Your task to perform on an android device: turn on javascript in the chrome app Image 0: 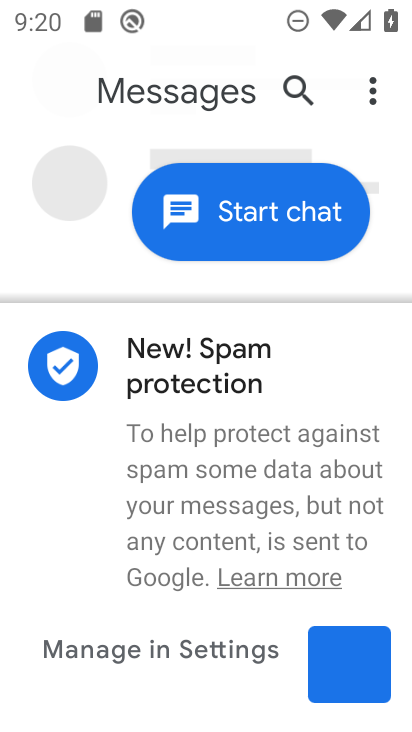
Step 0: press home button
Your task to perform on an android device: turn on javascript in the chrome app Image 1: 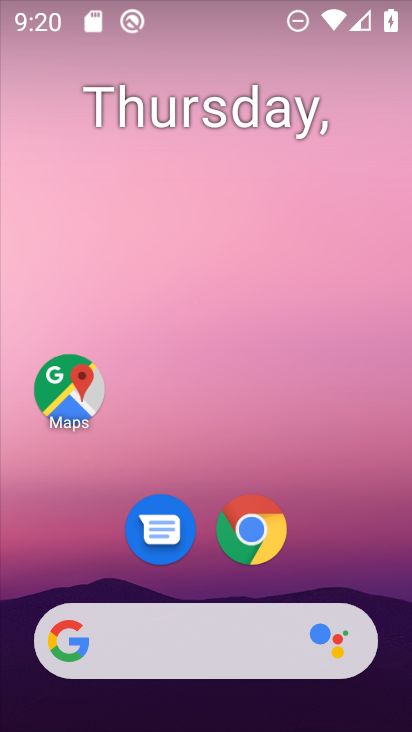
Step 1: click (244, 529)
Your task to perform on an android device: turn on javascript in the chrome app Image 2: 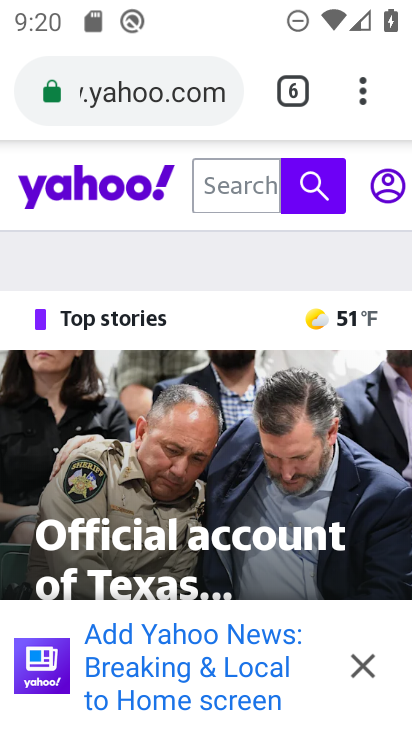
Step 2: click (360, 100)
Your task to perform on an android device: turn on javascript in the chrome app Image 3: 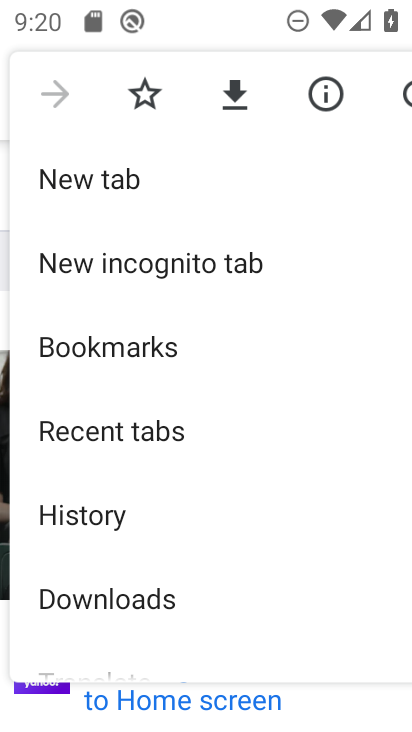
Step 3: drag from (103, 603) to (98, 142)
Your task to perform on an android device: turn on javascript in the chrome app Image 4: 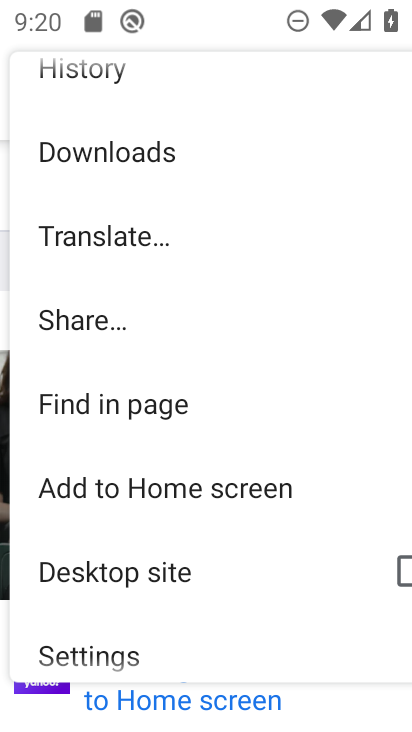
Step 4: click (99, 650)
Your task to perform on an android device: turn on javascript in the chrome app Image 5: 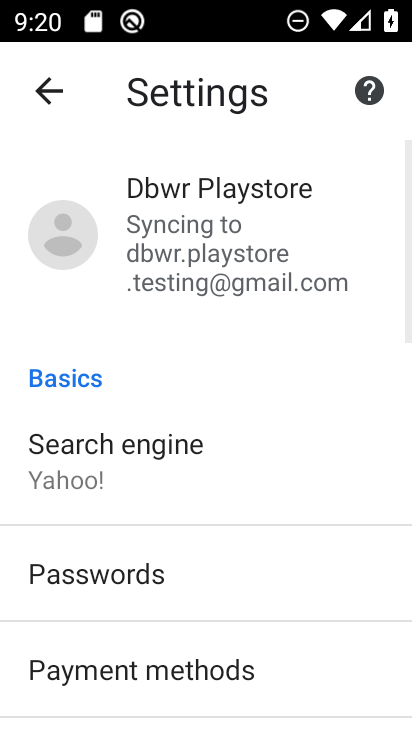
Step 5: drag from (147, 698) to (147, 537)
Your task to perform on an android device: turn on javascript in the chrome app Image 6: 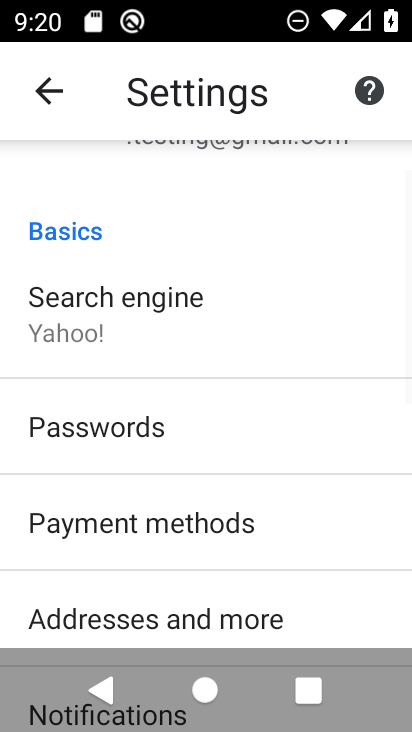
Step 6: click (181, 186)
Your task to perform on an android device: turn on javascript in the chrome app Image 7: 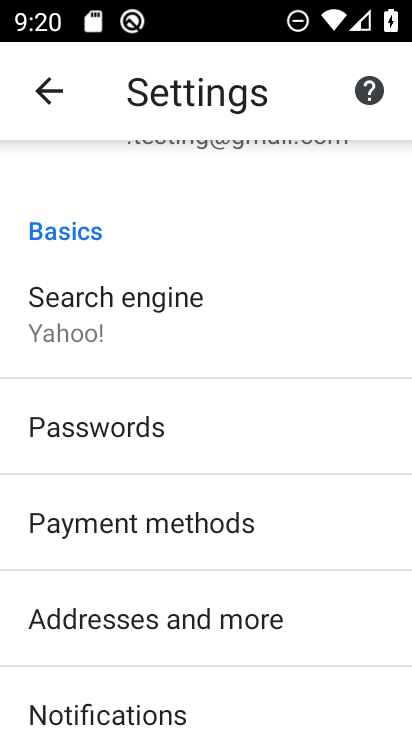
Step 7: drag from (340, 632) to (335, 130)
Your task to perform on an android device: turn on javascript in the chrome app Image 8: 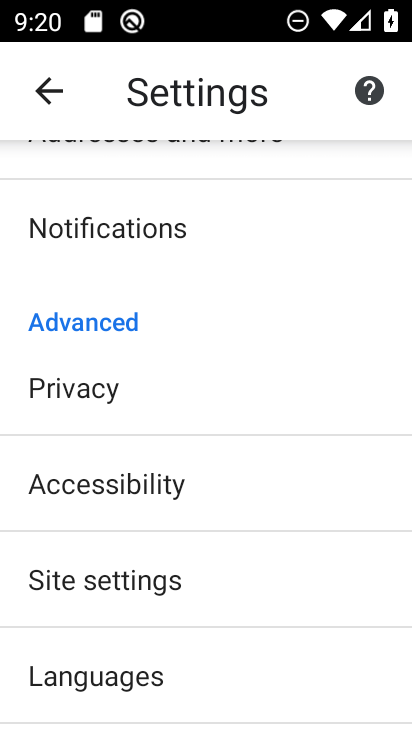
Step 8: click (111, 578)
Your task to perform on an android device: turn on javascript in the chrome app Image 9: 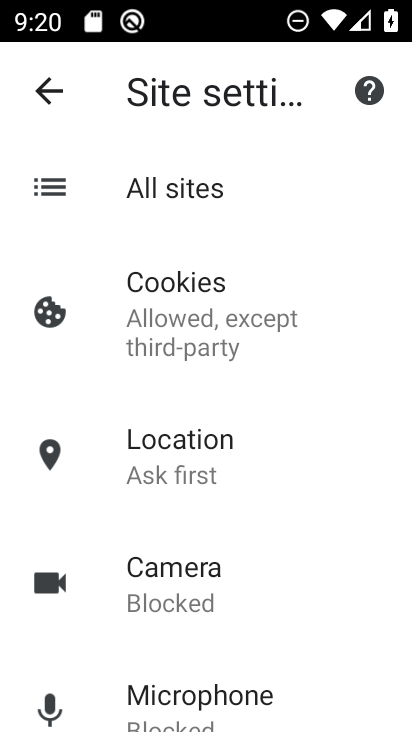
Step 9: drag from (271, 703) to (271, 619)
Your task to perform on an android device: turn on javascript in the chrome app Image 10: 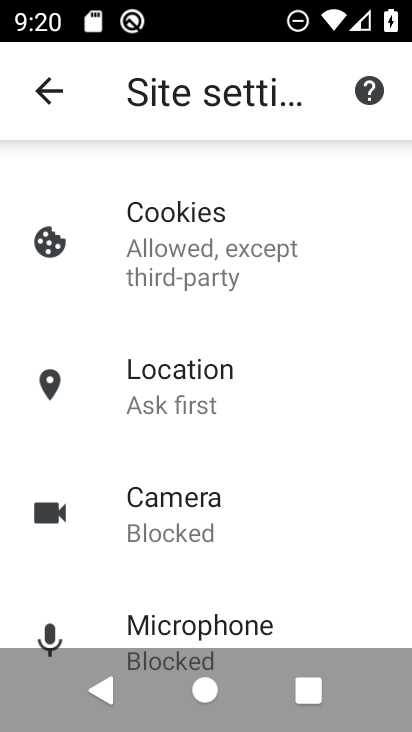
Step 10: drag from (271, 361) to (272, 305)
Your task to perform on an android device: turn on javascript in the chrome app Image 11: 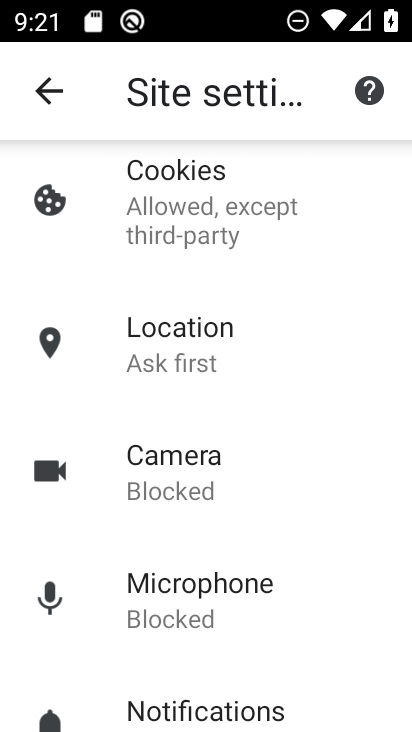
Step 11: drag from (197, 690) to (200, 623)
Your task to perform on an android device: turn on javascript in the chrome app Image 12: 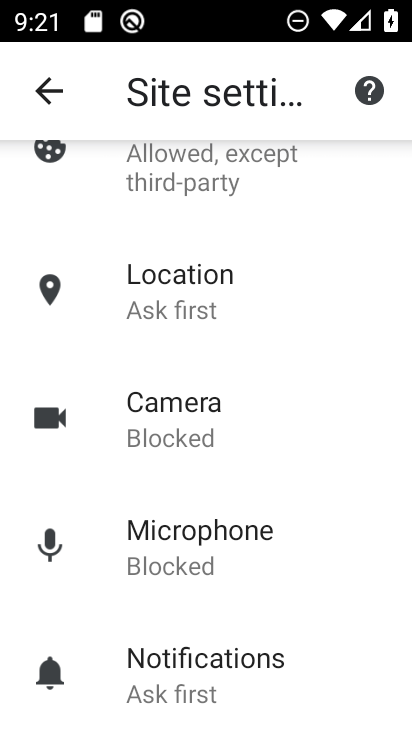
Step 12: click (215, 325)
Your task to perform on an android device: turn on javascript in the chrome app Image 13: 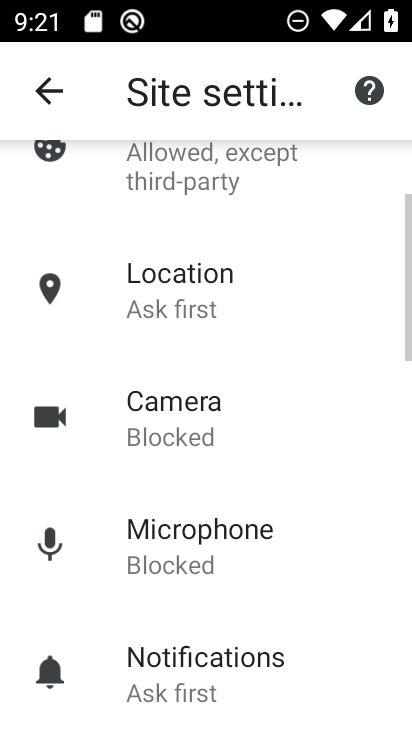
Step 13: drag from (262, 700) to (262, 608)
Your task to perform on an android device: turn on javascript in the chrome app Image 14: 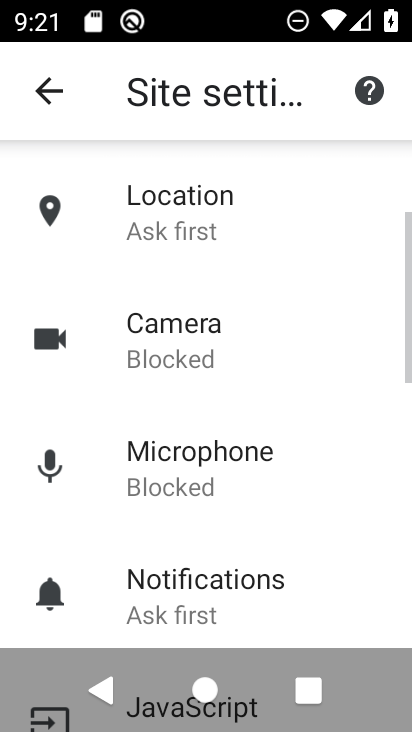
Step 14: drag from (263, 329) to (266, 276)
Your task to perform on an android device: turn on javascript in the chrome app Image 15: 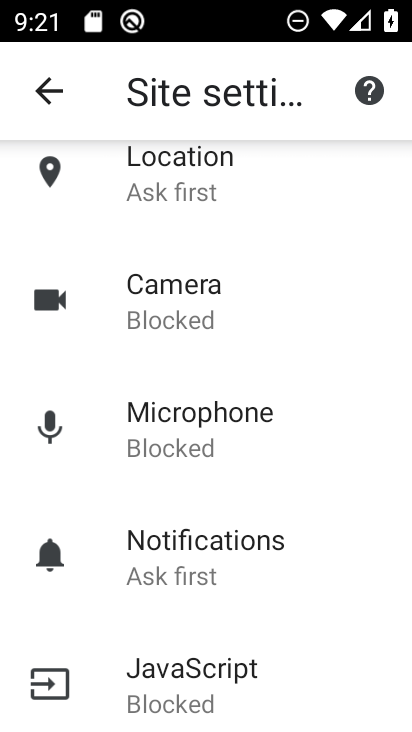
Step 15: click (175, 679)
Your task to perform on an android device: turn on javascript in the chrome app Image 16: 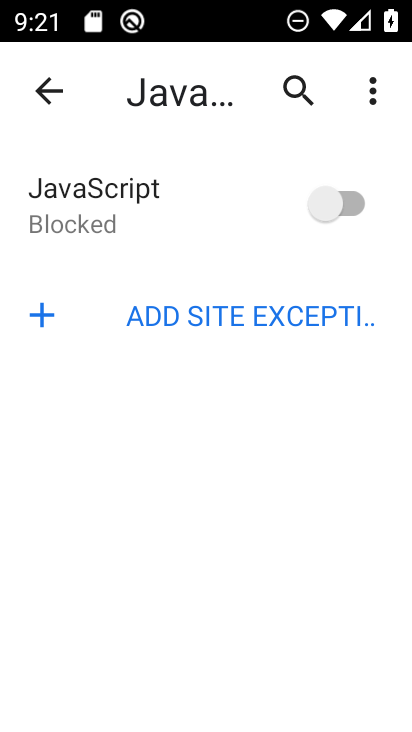
Step 16: click (355, 201)
Your task to perform on an android device: turn on javascript in the chrome app Image 17: 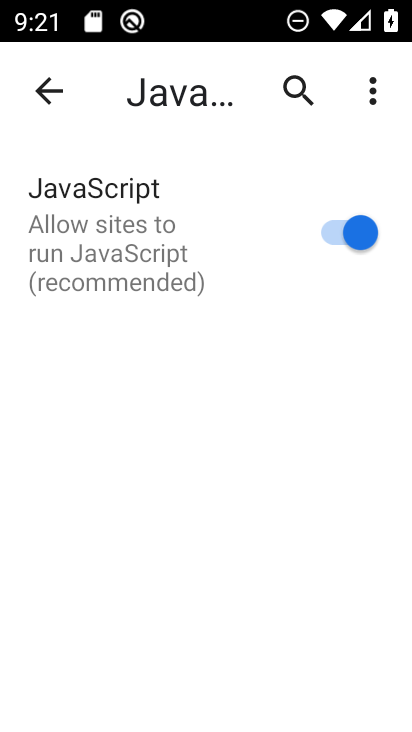
Step 17: task complete